Your task to perform on an android device: show emergency info Image 0: 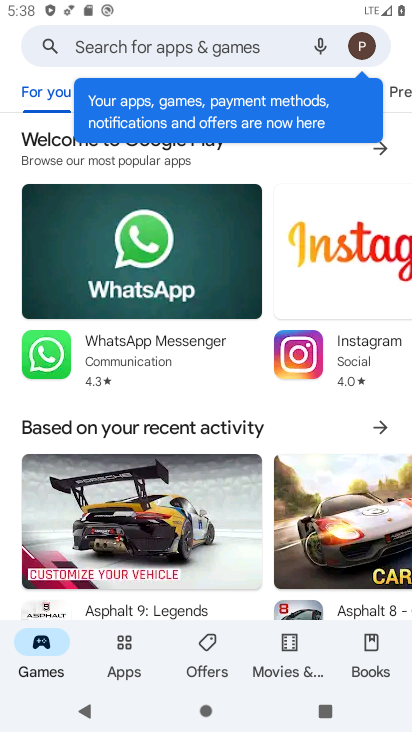
Step 0: press home button
Your task to perform on an android device: show emergency info Image 1: 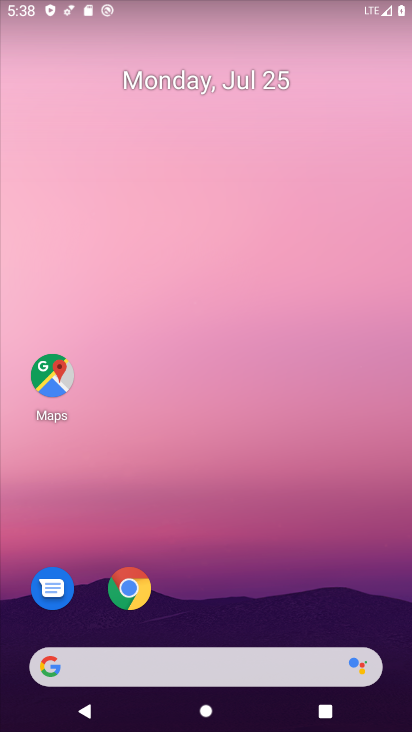
Step 1: drag from (169, 667) to (279, 19)
Your task to perform on an android device: show emergency info Image 2: 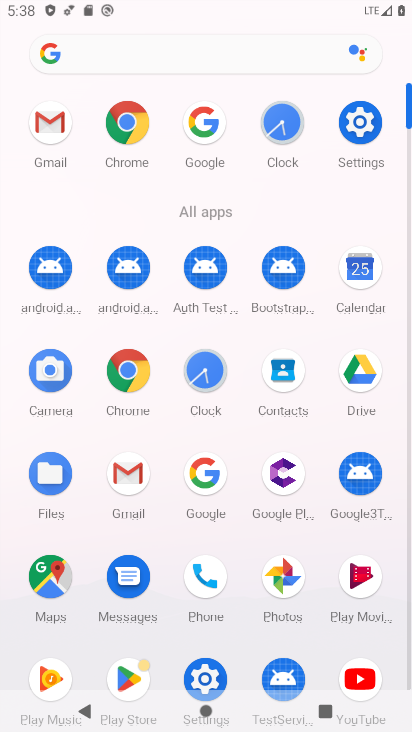
Step 2: click (358, 122)
Your task to perform on an android device: show emergency info Image 3: 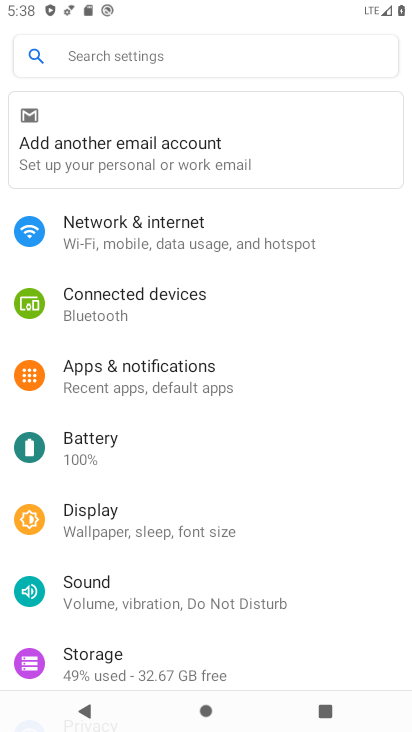
Step 3: drag from (161, 434) to (174, 292)
Your task to perform on an android device: show emergency info Image 4: 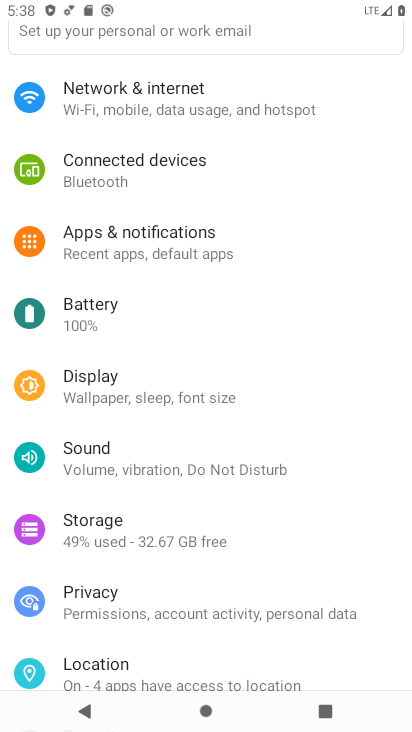
Step 4: drag from (124, 417) to (152, 207)
Your task to perform on an android device: show emergency info Image 5: 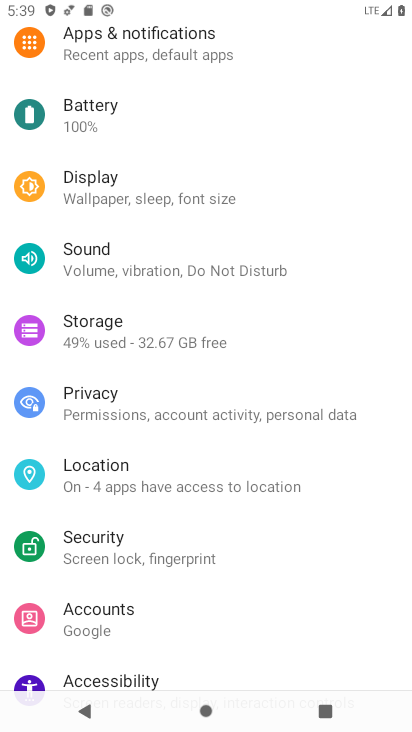
Step 5: drag from (147, 446) to (127, 217)
Your task to perform on an android device: show emergency info Image 6: 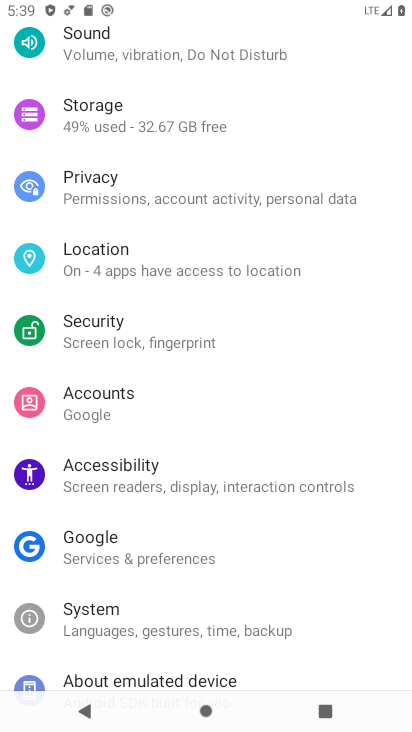
Step 6: drag from (146, 424) to (203, 135)
Your task to perform on an android device: show emergency info Image 7: 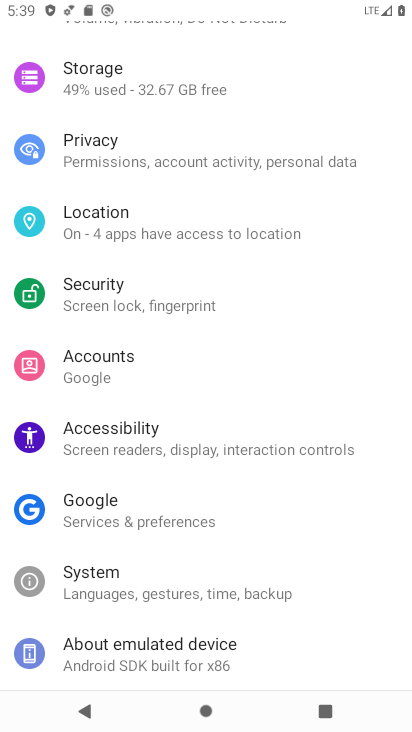
Step 7: click (139, 646)
Your task to perform on an android device: show emergency info Image 8: 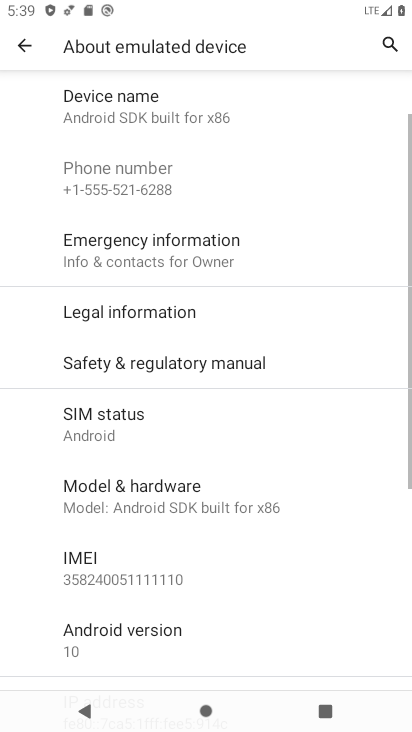
Step 8: click (147, 258)
Your task to perform on an android device: show emergency info Image 9: 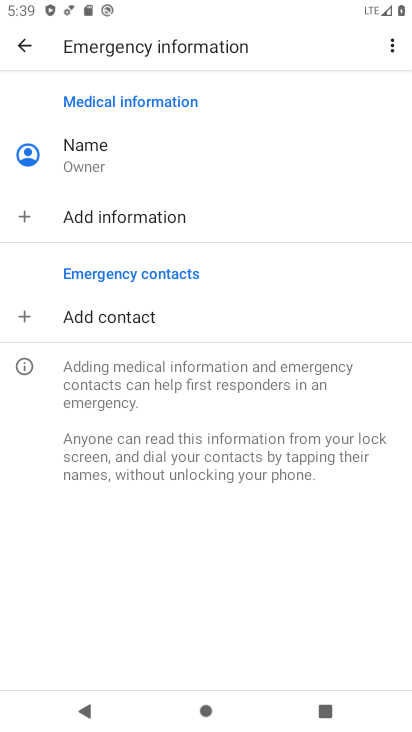
Step 9: task complete